Your task to perform on an android device: Go to eBay Image 0: 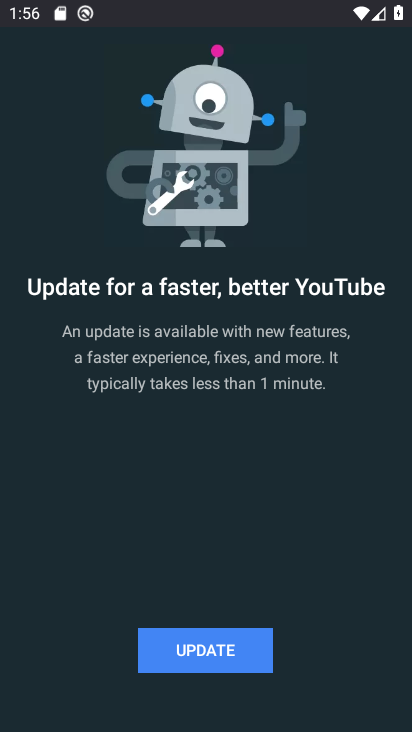
Step 0: press home button
Your task to perform on an android device: Go to eBay Image 1: 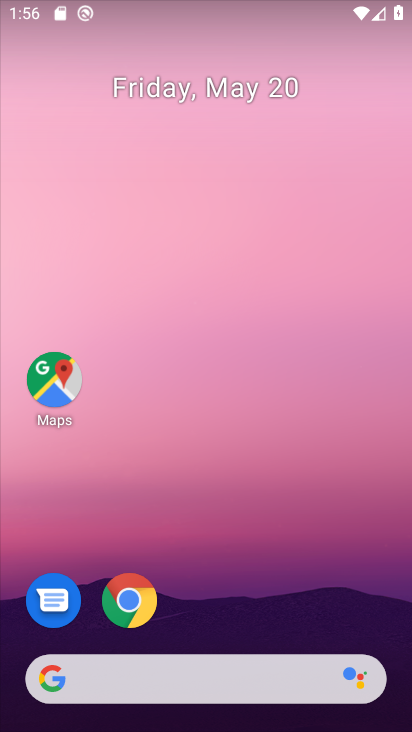
Step 1: click (146, 600)
Your task to perform on an android device: Go to eBay Image 2: 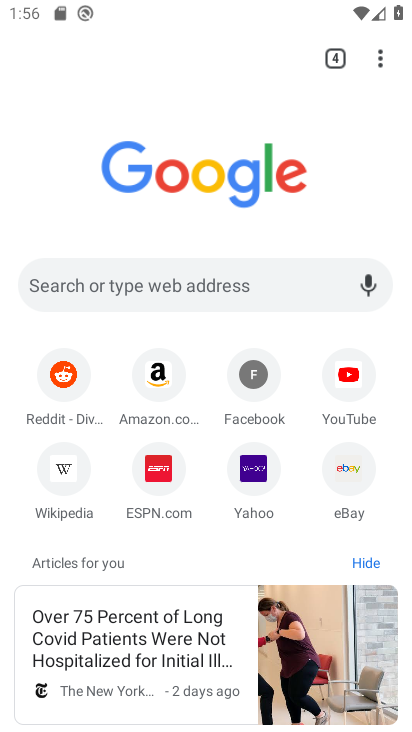
Step 2: click (342, 470)
Your task to perform on an android device: Go to eBay Image 3: 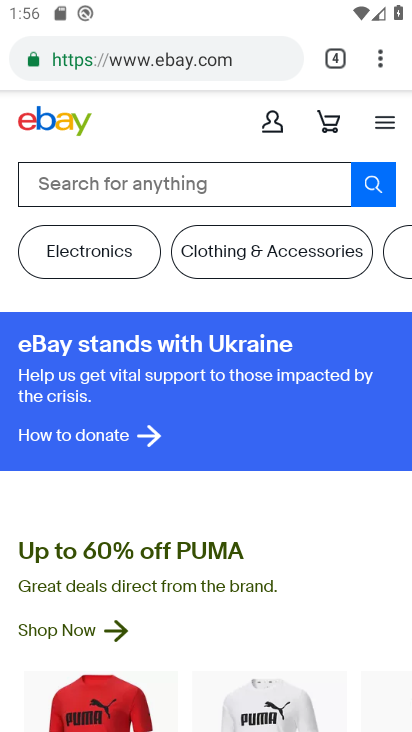
Step 3: task complete